Your task to perform on an android device: toggle location history Image 0: 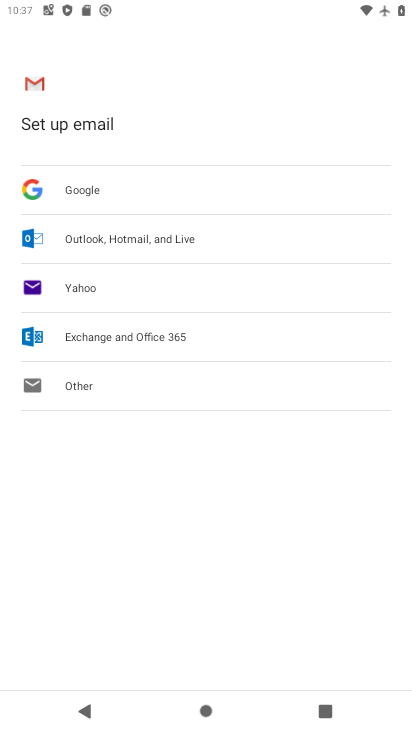
Step 0: click (257, 626)
Your task to perform on an android device: toggle location history Image 1: 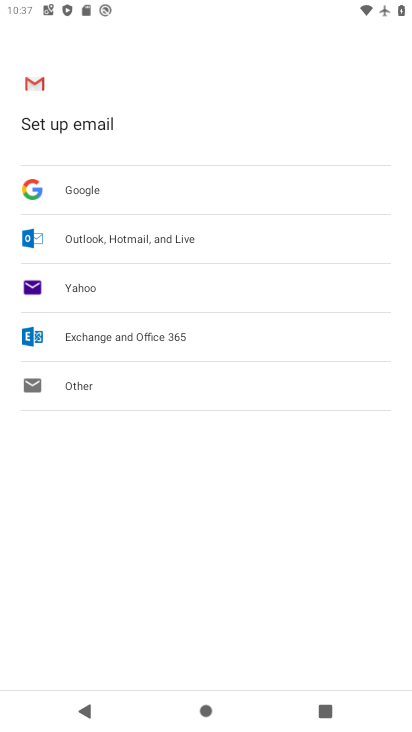
Step 1: press home button
Your task to perform on an android device: toggle location history Image 2: 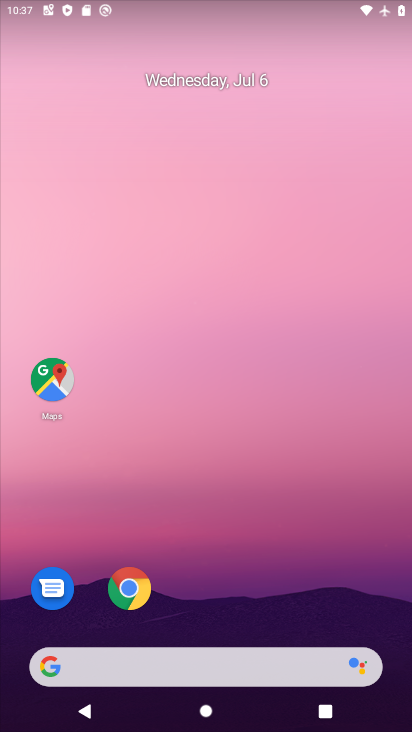
Step 2: drag from (239, 613) to (245, 142)
Your task to perform on an android device: toggle location history Image 3: 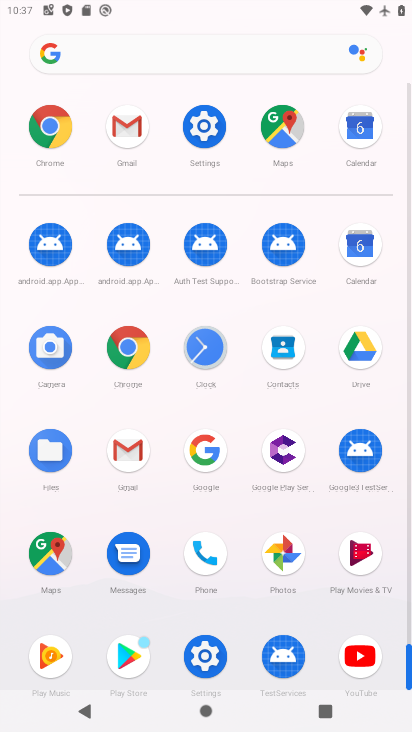
Step 3: click (197, 118)
Your task to perform on an android device: toggle location history Image 4: 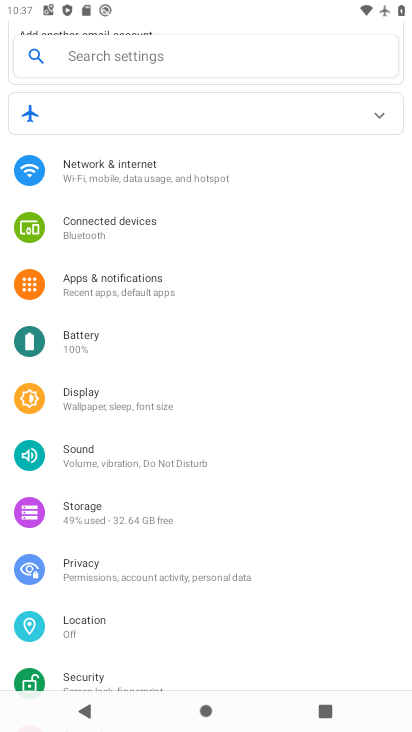
Step 4: click (115, 615)
Your task to perform on an android device: toggle location history Image 5: 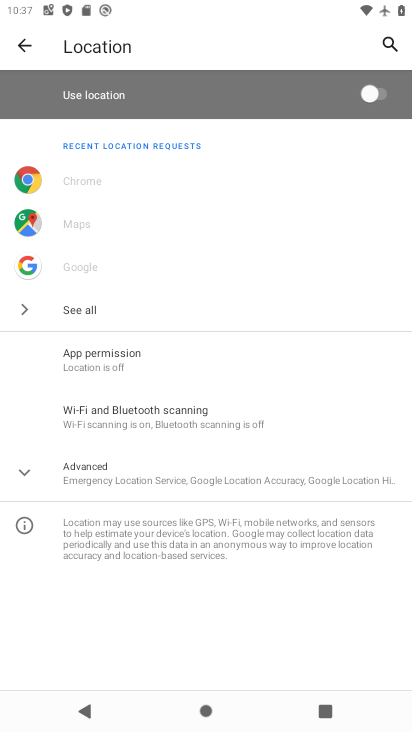
Step 5: click (181, 476)
Your task to perform on an android device: toggle location history Image 6: 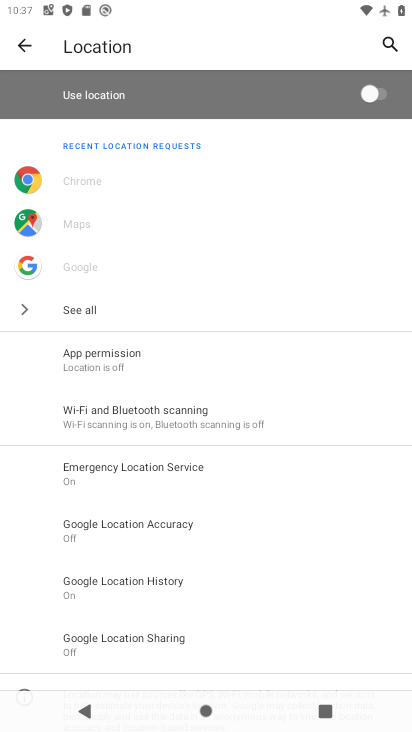
Step 6: click (155, 605)
Your task to perform on an android device: toggle location history Image 7: 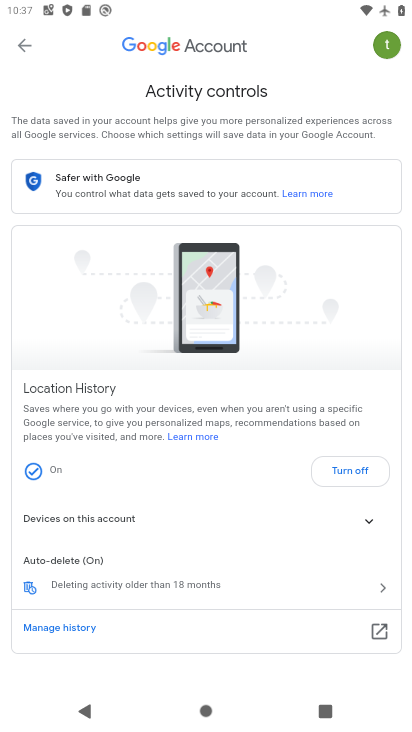
Step 7: click (355, 462)
Your task to perform on an android device: toggle location history Image 8: 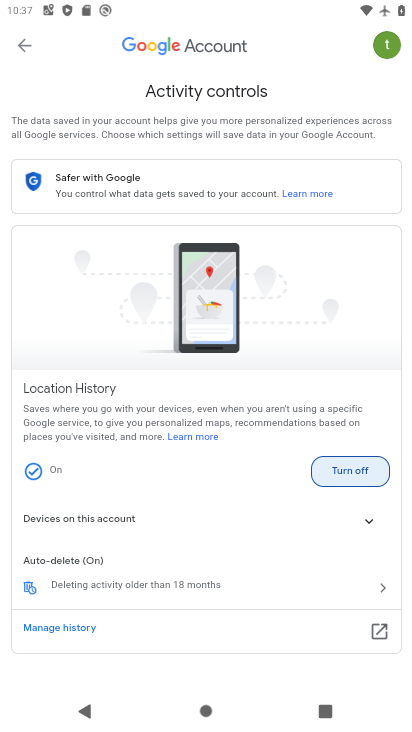
Step 8: task complete